Your task to perform on an android device: make emails show in primary in the gmail app Image 0: 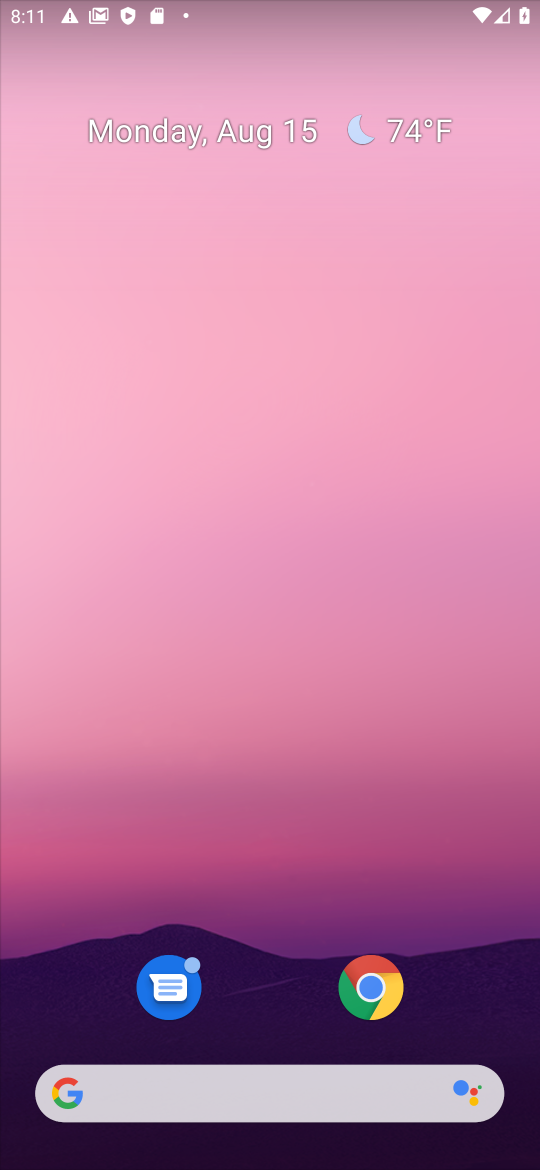
Step 0: drag from (320, 1075) to (250, 338)
Your task to perform on an android device: make emails show in primary in the gmail app Image 1: 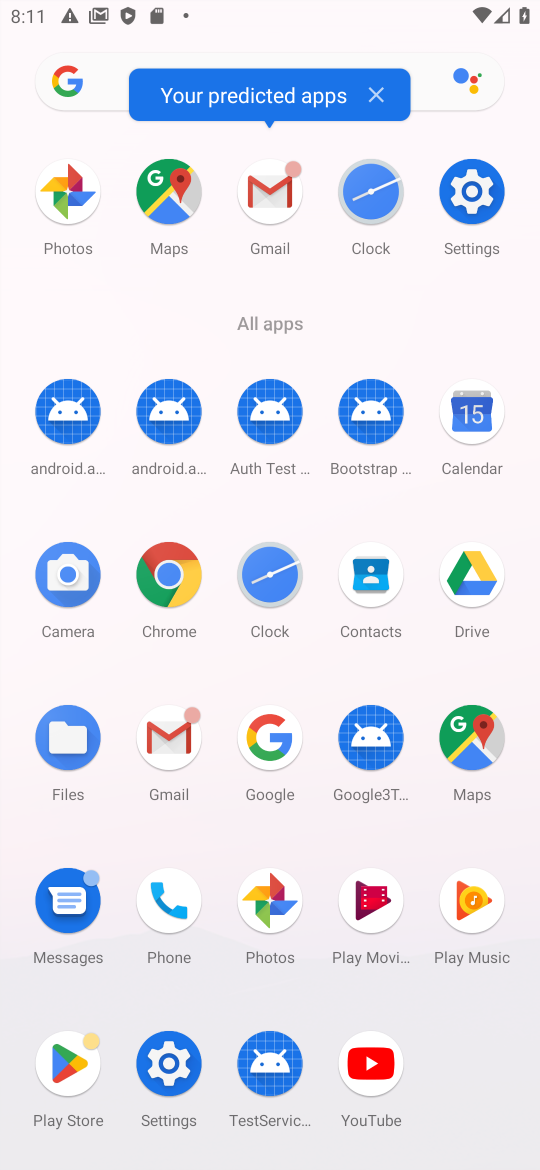
Step 1: click (279, 189)
Your task to perform on an android device: make emails show in primary in the gmail app Image 2: 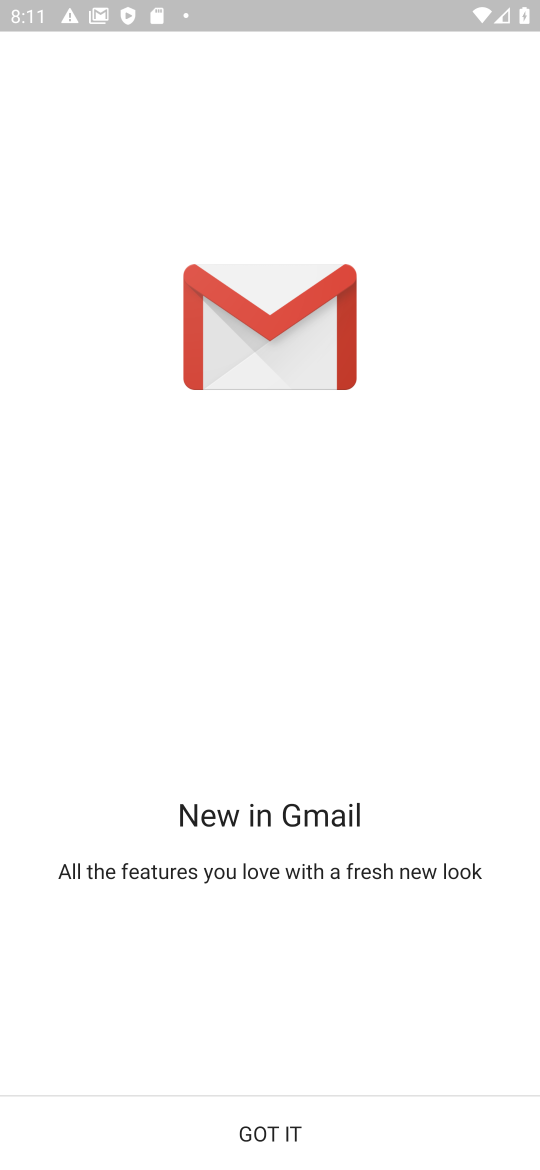
Step 2: click (262, 1145)
Your task to perform on an android device: make emails show in primary in the gmail app Image 3: 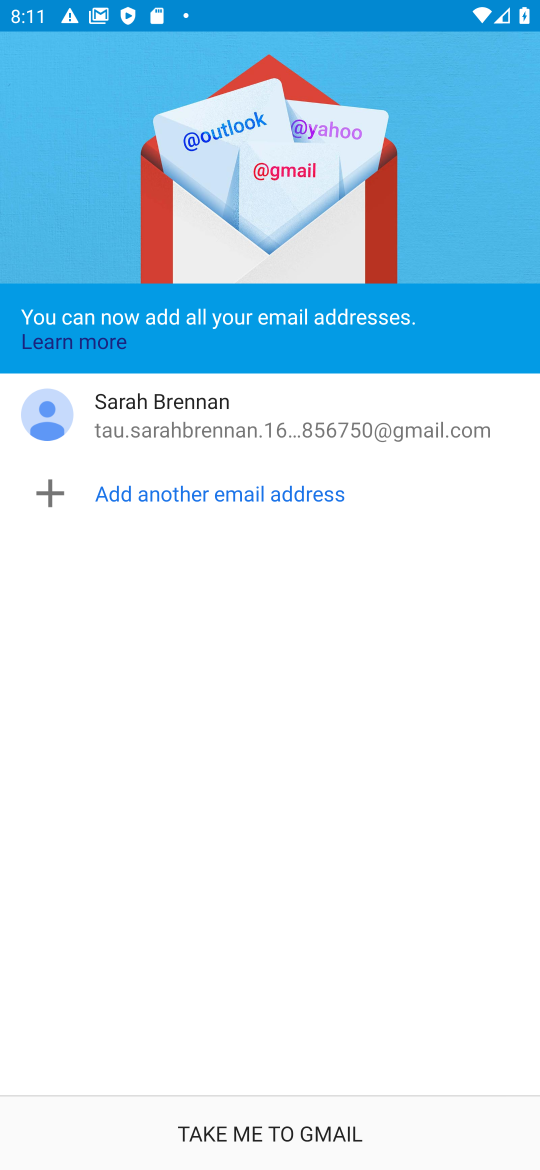
Step 3: click (262, 1138)
Your task to perform on an android device: make emails show in primary in the gmail app Image 4: 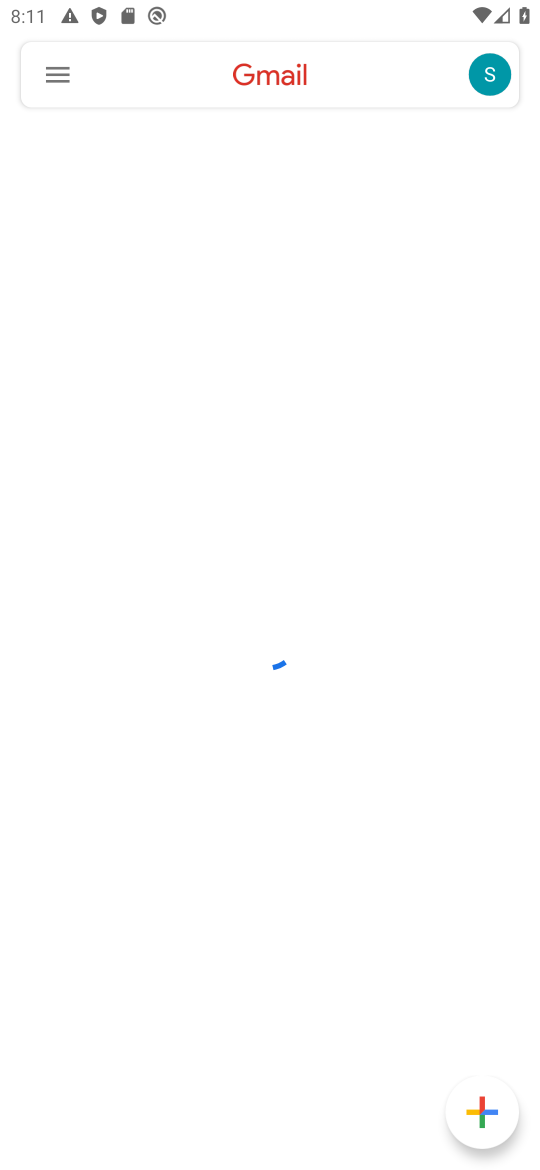
Step 4: click (52, 70)
Your task to perform on an android device: make emails show in primary in the gmail app Image 5: 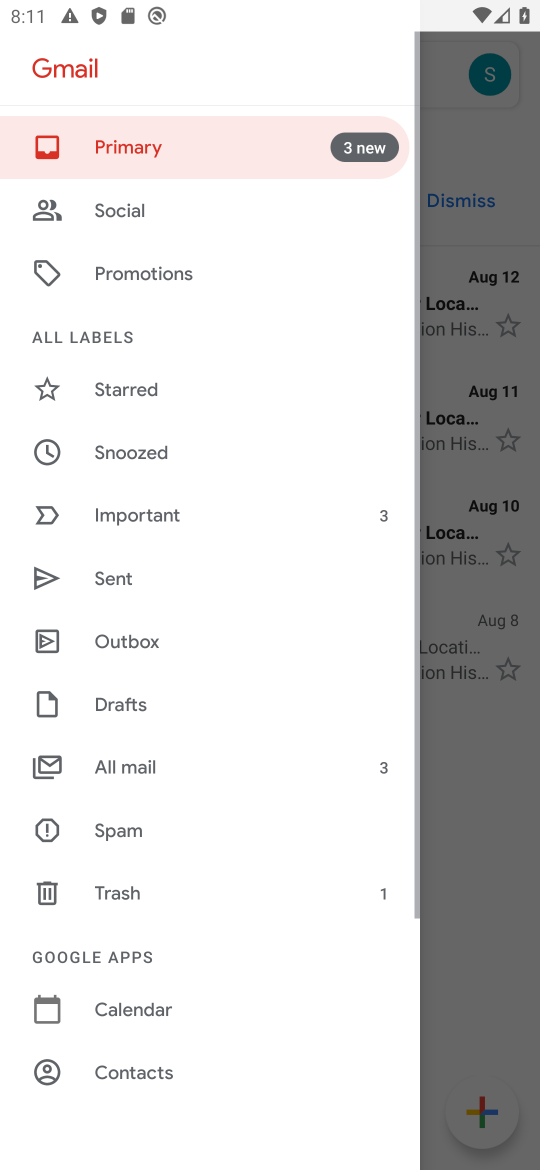
Step 5: drag from (99, 501) to (96, 401)
Your task to perform on an android device: make emails show in primary in the gmail app Image 6: 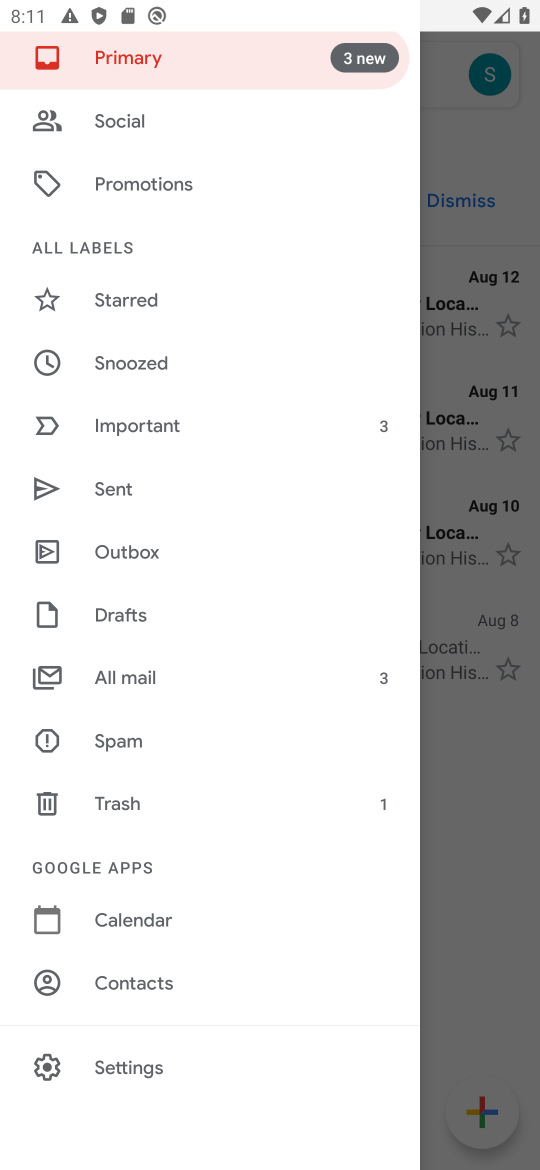
Step 6: click (127, 1052)
Your task to perform on an android device: make emails show in primary in the gmail app Image 7: 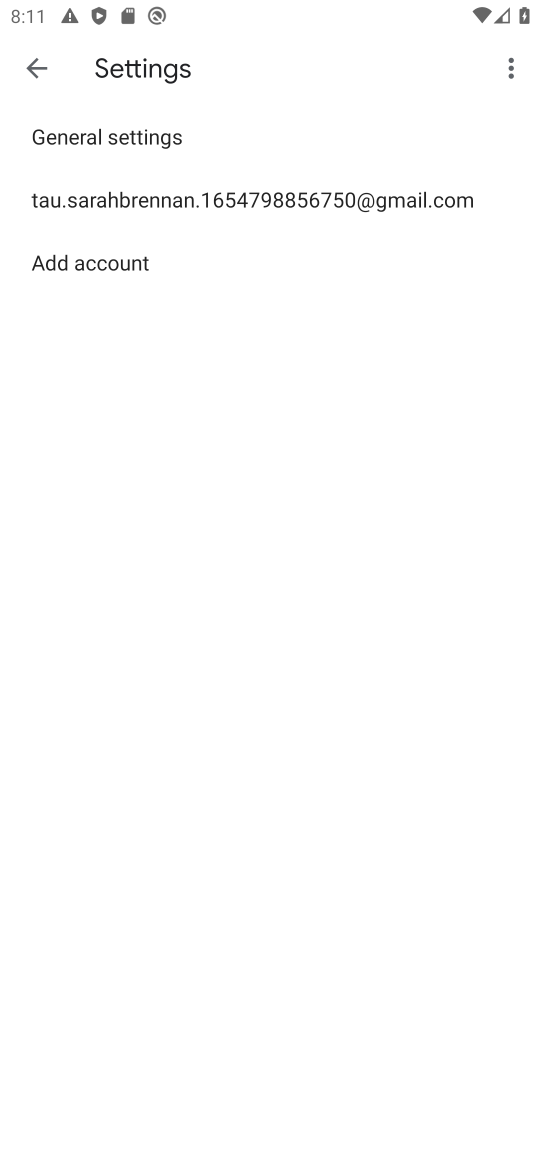
Step 7: click (116, 200)
Your task to perform on an android device: make emails show in primary in the gmail app Image 8: 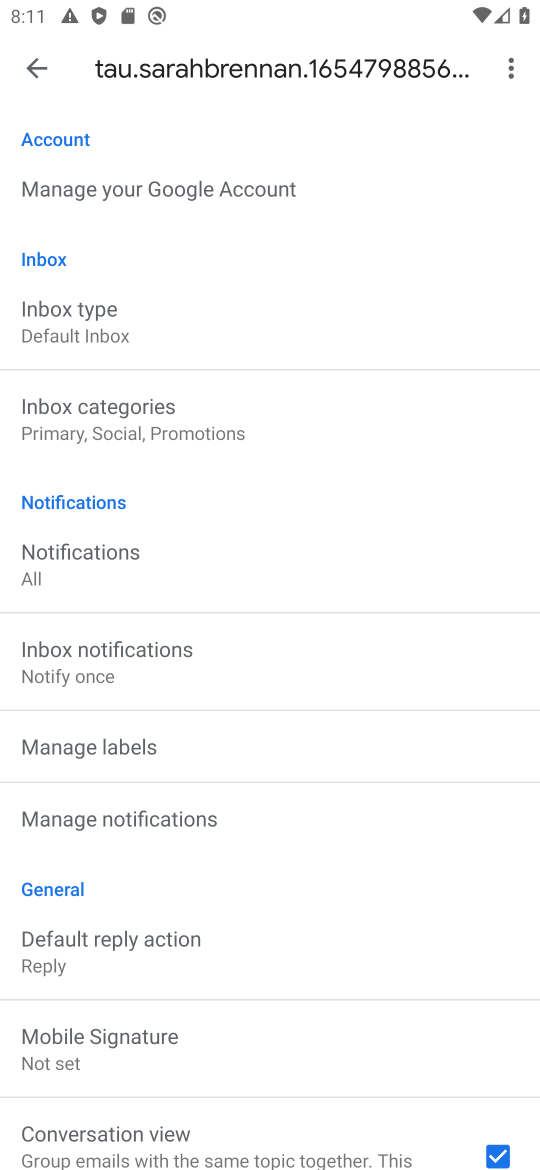
Step 8: click (69, 409)
Your task to perform on an android device: make emails show in primary in the gmail app Image 9: 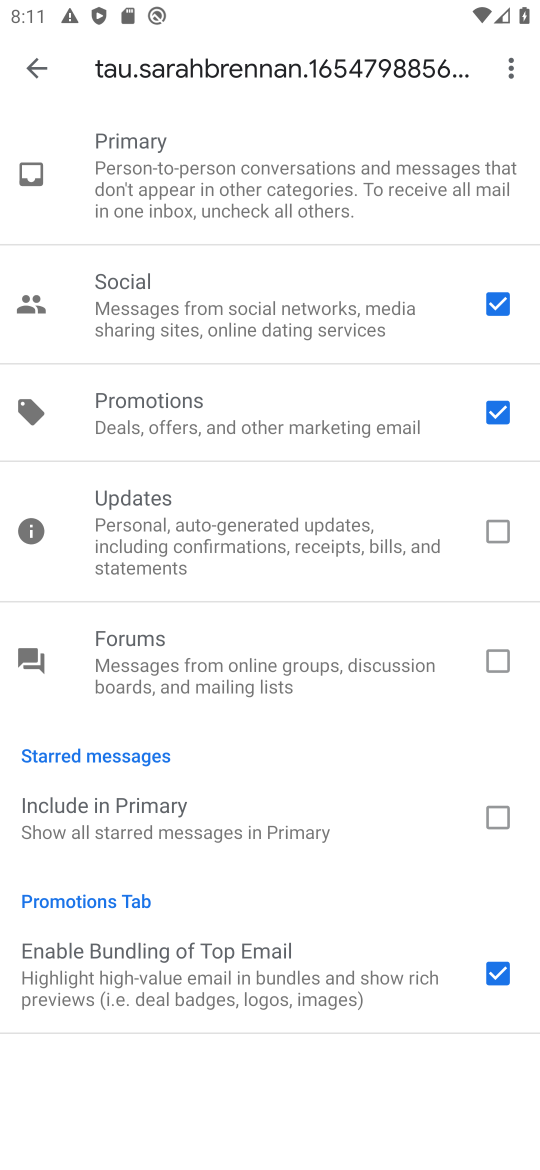
Step 9: click (514, 416)
Your task to perform on an android device: make emails show in primary in the gmail app Image 10: 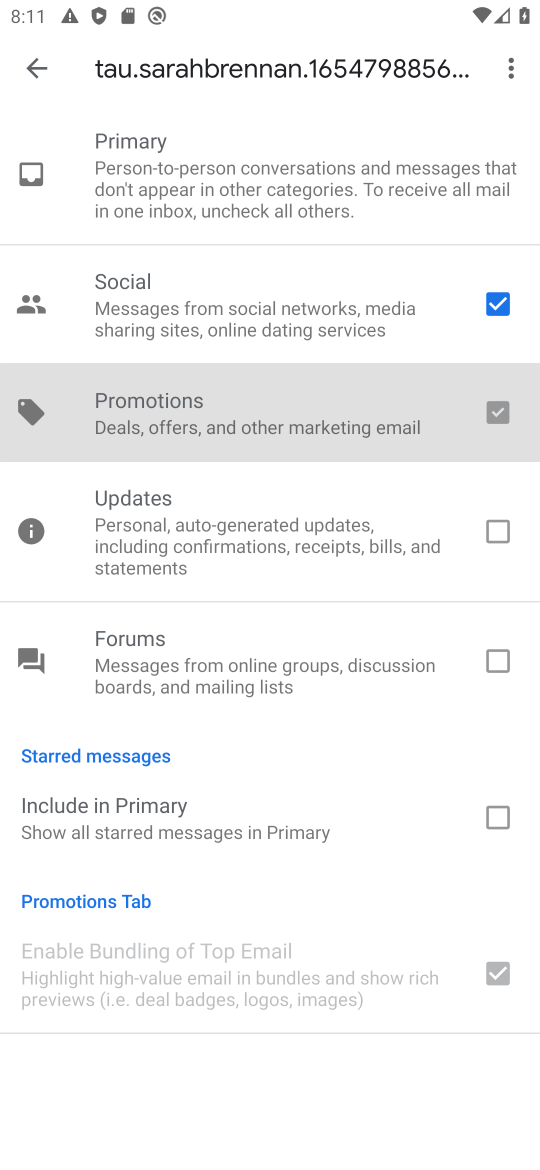
Step 10: click (476, 288)
Your task to perform on an android device: make emails show in primary in the gmail app Image 11: 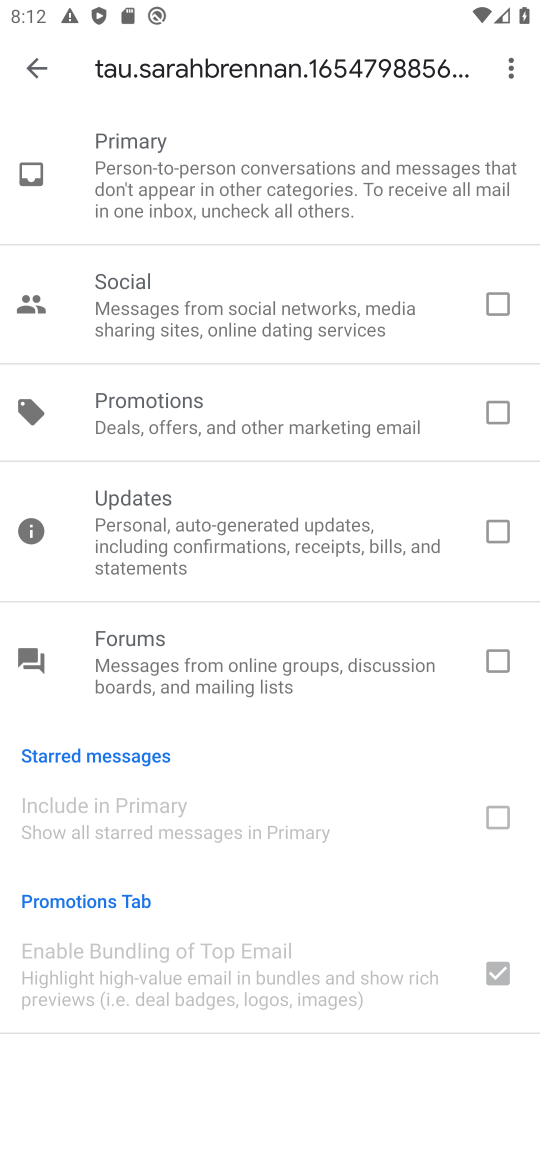
Step 11: click (42, 60)
Your task to perform on an android device: make emails show in primary in the gmail app Image 12: 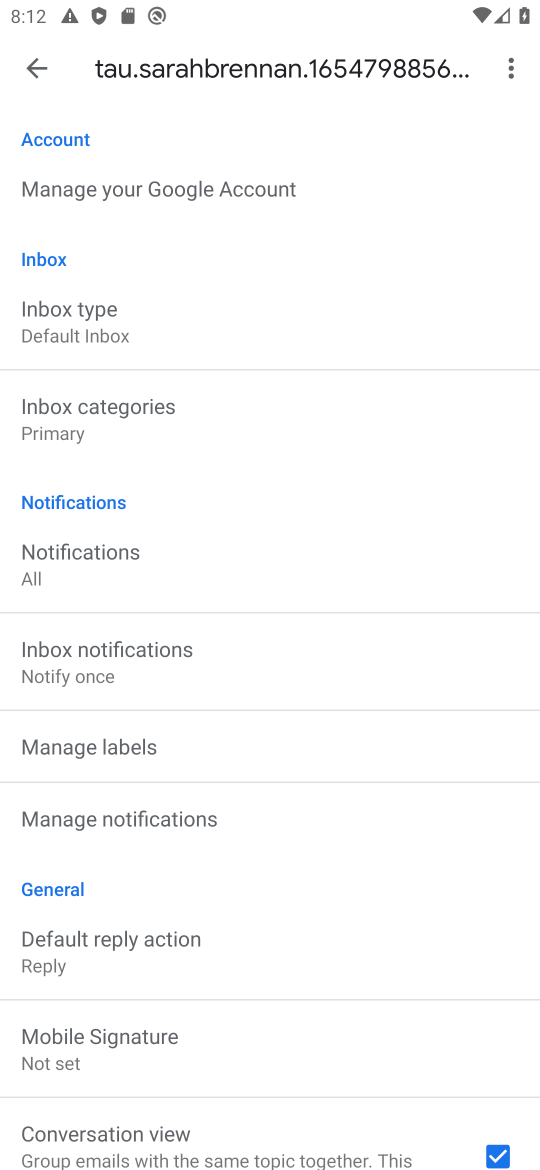
Step 12: task complete